Your task to perform on an android device: Search for Italian restaurants on Maps Image 0: 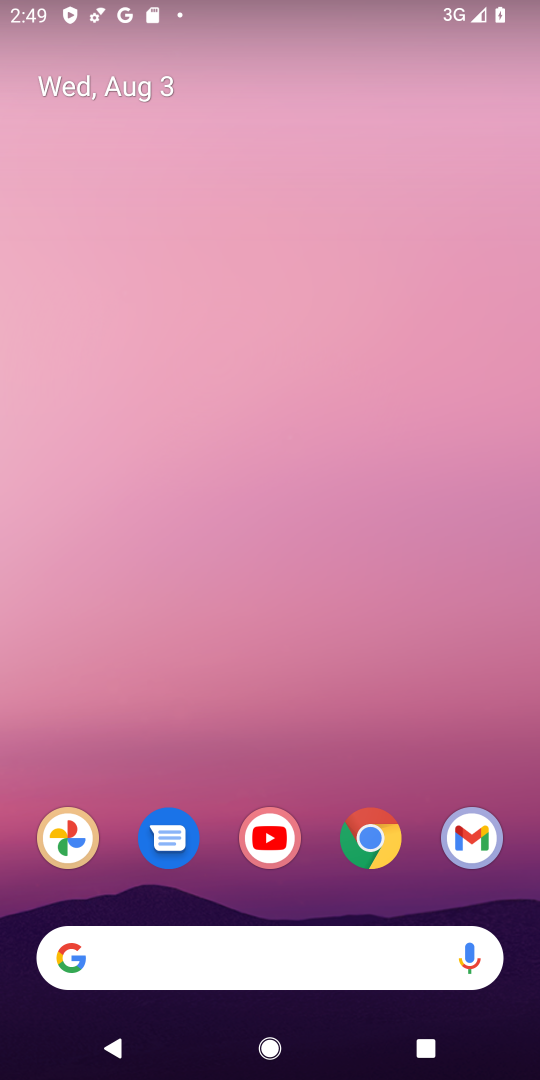
Step 0: drag from (299, 891) to (244, 103)
Your task to perform on an android device: Search for Italian restaurants on Maps Image 1: 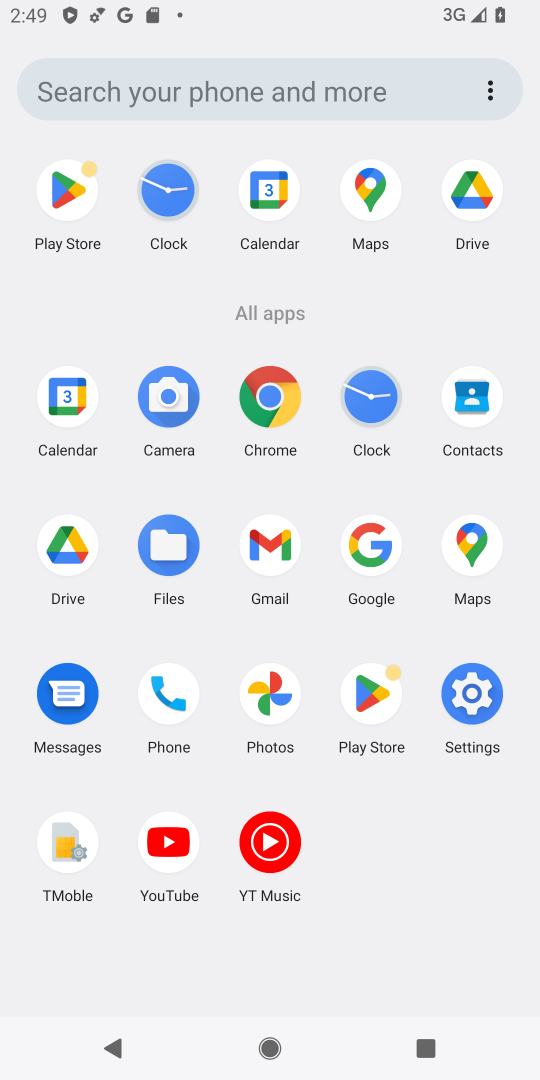
Step 1: click (359, 182)
Your task to perform on an android device: Search for Italian restaurants on Maps Image 2: 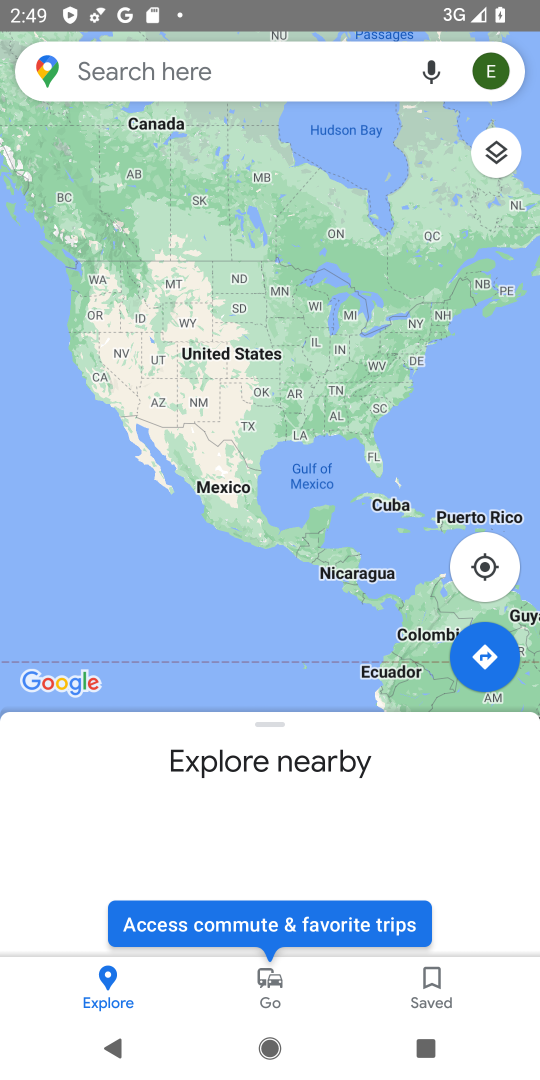
Step 2: click (343, 72)
Your task to perform on an android device: Search for Italian restaurants on Maps Image 3: 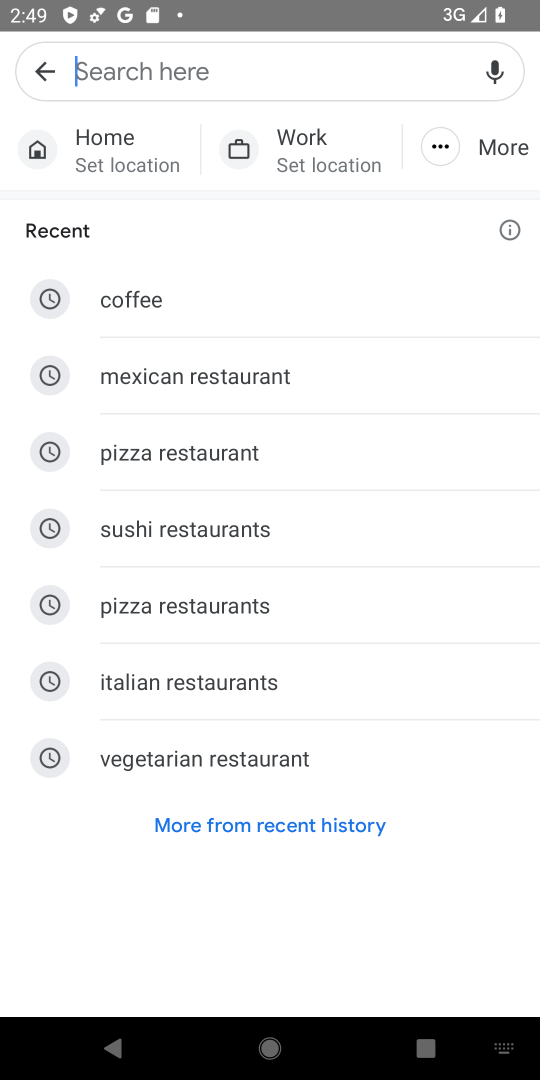
Step 3: type "italian restaurants"
Your task to perform on an android device: Search for Italian restaurants on Maps Image 4: 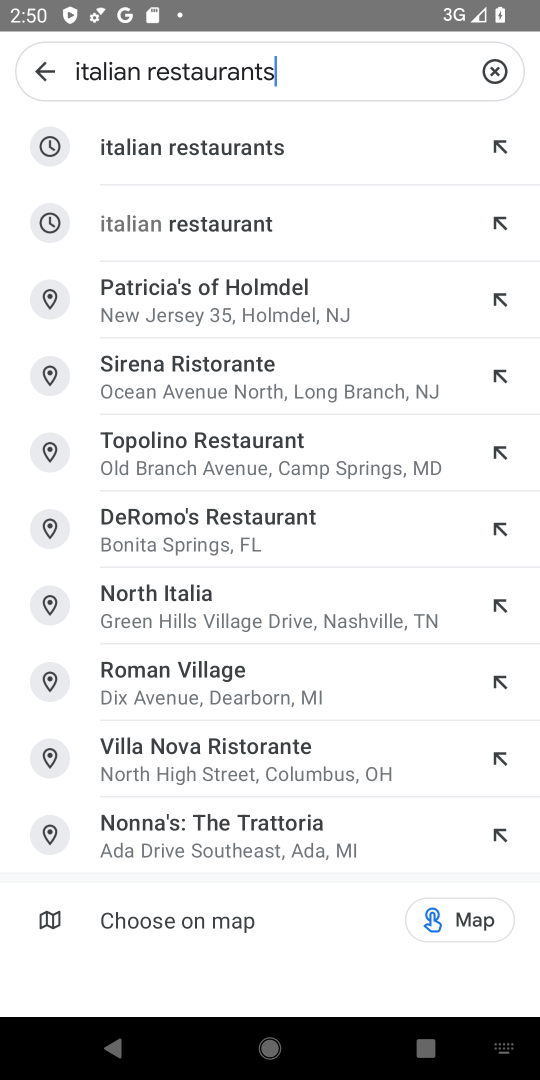
Step 4: click (219, 138)
Your task to perform on an android device: Search for Italian restaurants on Maps Image 5: 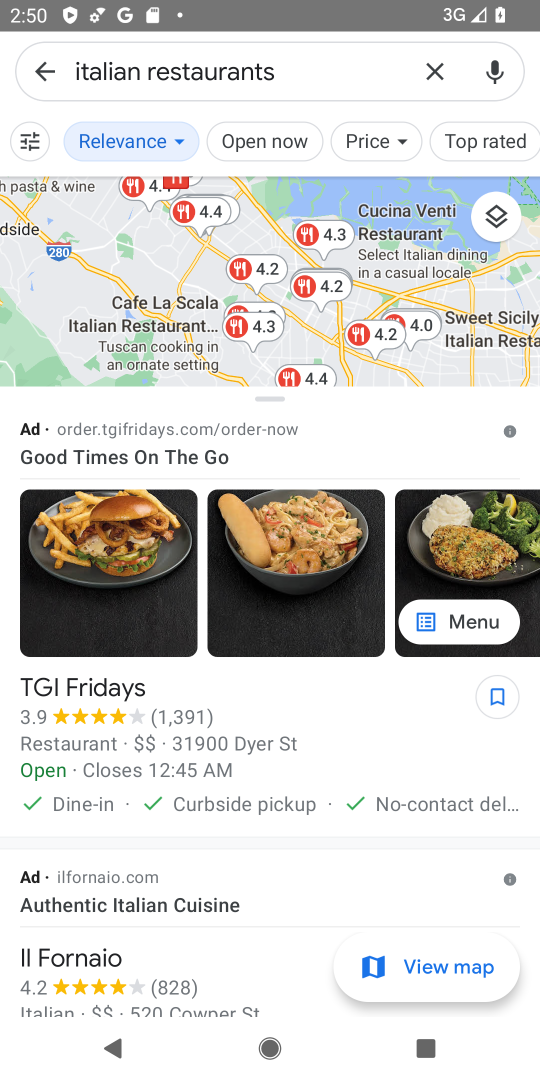
Step 5: task complete